Your task to perform on an android device: change the clock style Image 0: 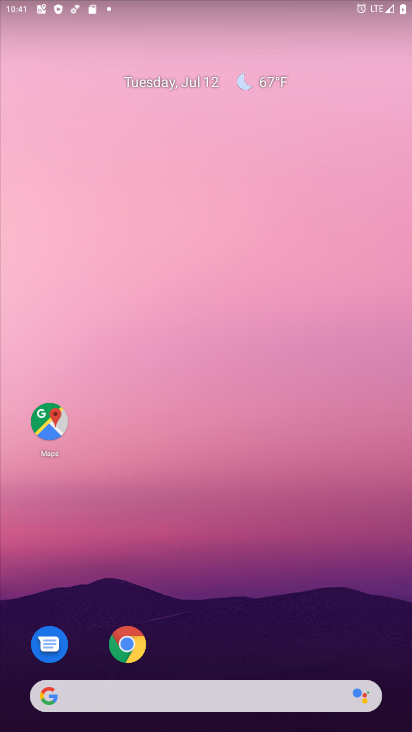
Step 0: drag from (324, 309) to (408, 77)
Your task to perform on an android device: change the clock style Image 1: 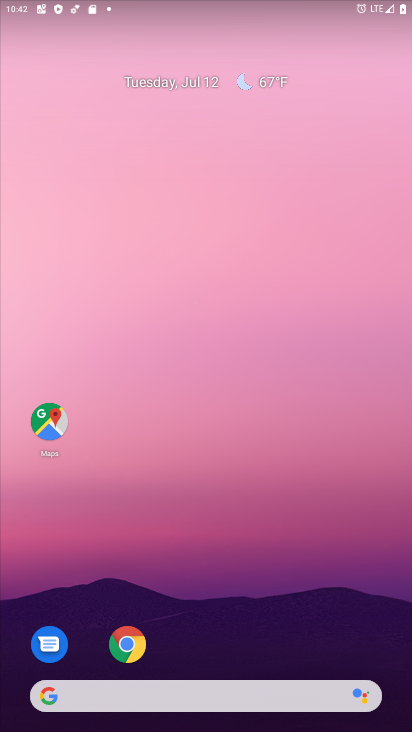
Step 1: drag from (183, 569) to (249, 137)
Your task to perform on an android device: change the clock style Image 2: 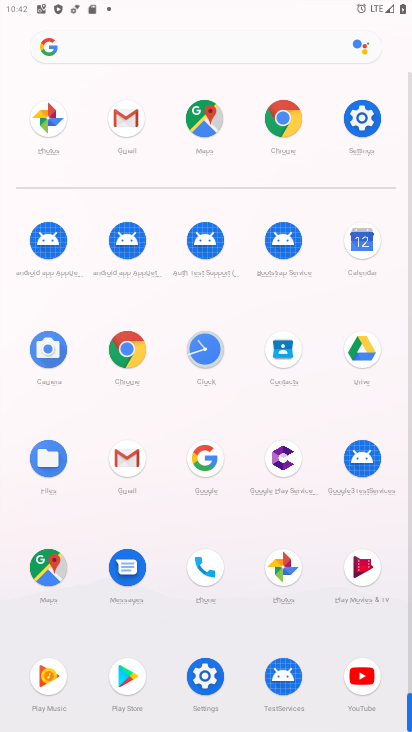
Step 2: click (201, 360)
Your task to perform on an android device: change the clock style Image 3: 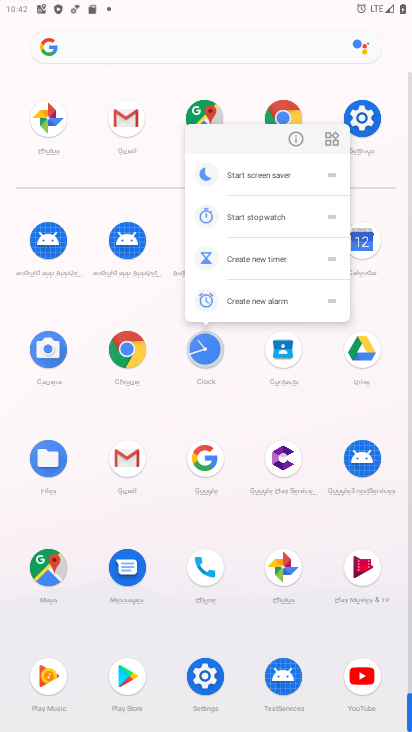
Step 3: click (300, 137)
Your task to perform on an android device: change the clock style Image 4: 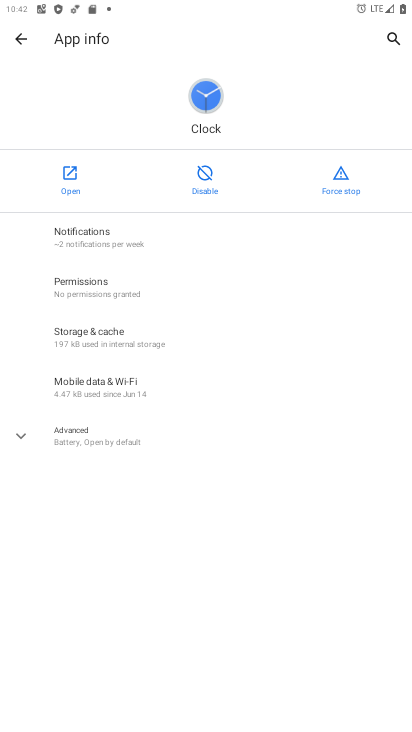
Step 4: click (61, 179)
Your task to perform on an android device: change the clock style Image 5: 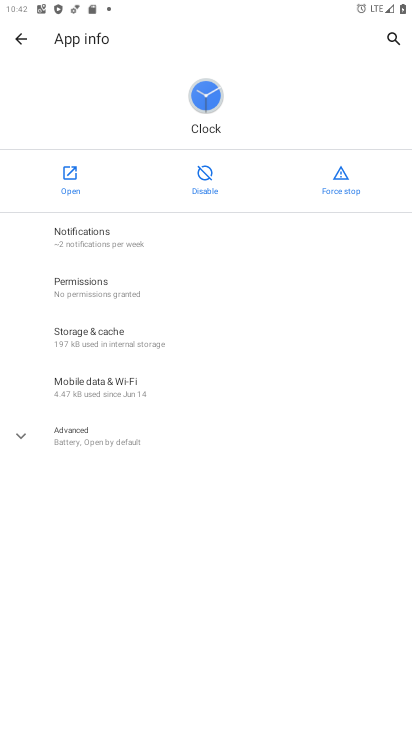
Step 5: click (61, 179)
Your task to perform on an android device: change the clock style Image 6: 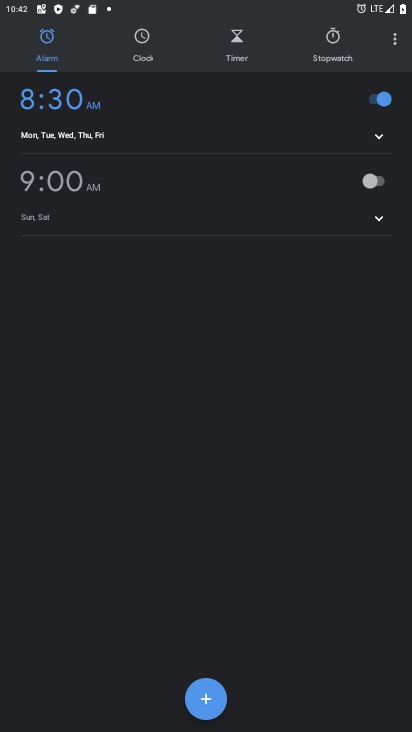
Step 6: click (137, 407)
Your task to perform on an android device: change the clock style Image 7: 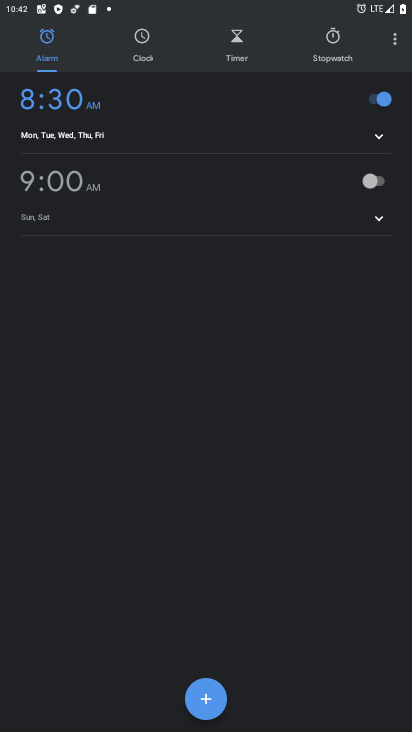
Step 7: click (394, 46)
Your task to perform on an android device: change the clock style Image 8: 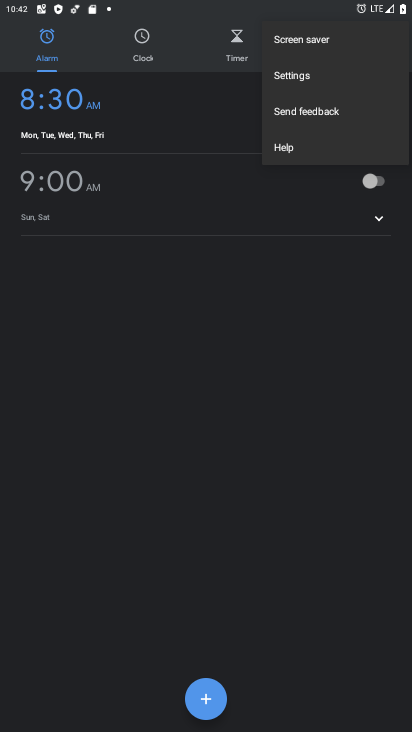
Step 8: click (299, 77)
Your task to perform on an android device: change the clock style Image 9: 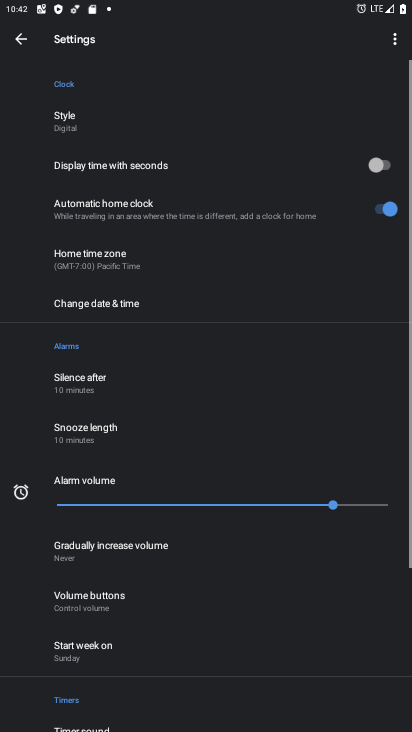
Step 9: click (78, 117)
Your task to perform on an android device: change the clock style Image 10: 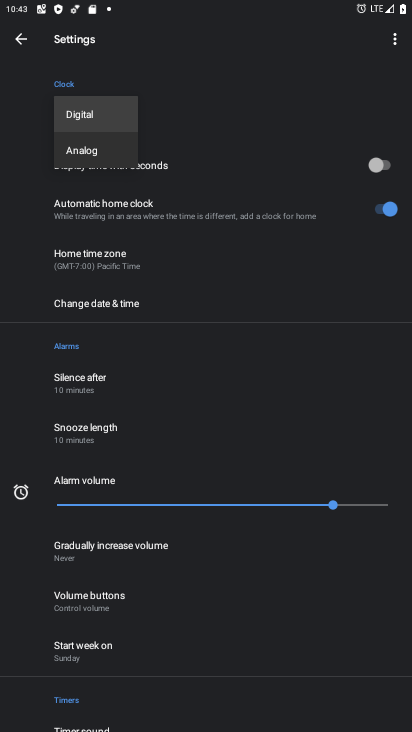
Step 10: click (104, 147)
Your task to perform on an android device: change the clock style Image 11: 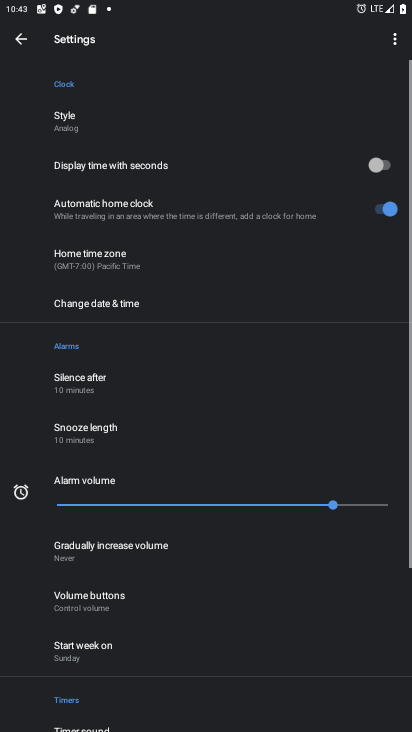
Step 11: task complete